Your task to perform on an android device: Open privacy settings Image 0: 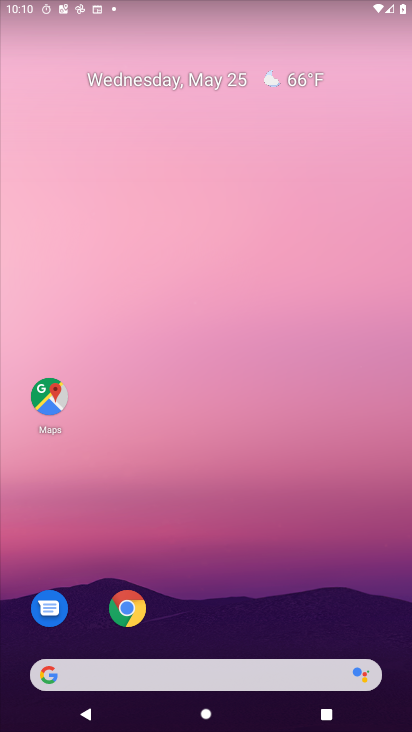
Step 0: drag from (230, 709) to (216, 3)
Your task to perform on an android device: Open privacy settings Image 1: 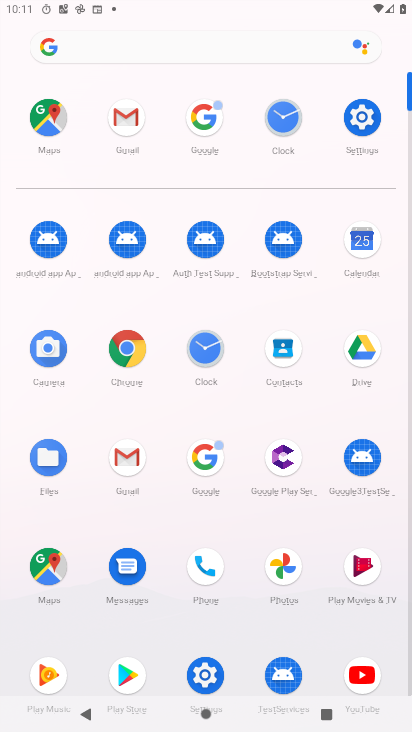
Step 1: click (355, 113)
Your task to perform on an android device: Open privacy settings Image 2: 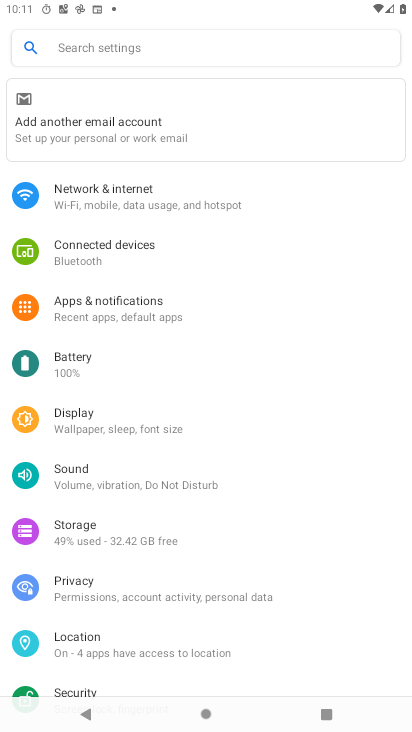
Step 2: click (67, 582)
Your task to perform on an android device: Open privacy settings Image 3: 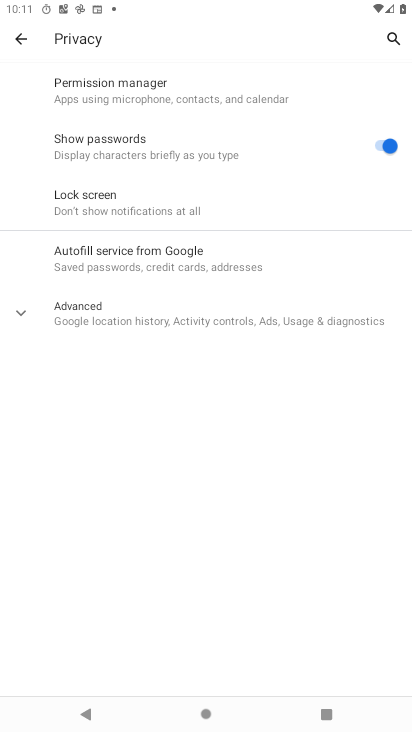
Step 3: task complete